Your task to perform on an android device: Find coffee shops on Maps Image 0: 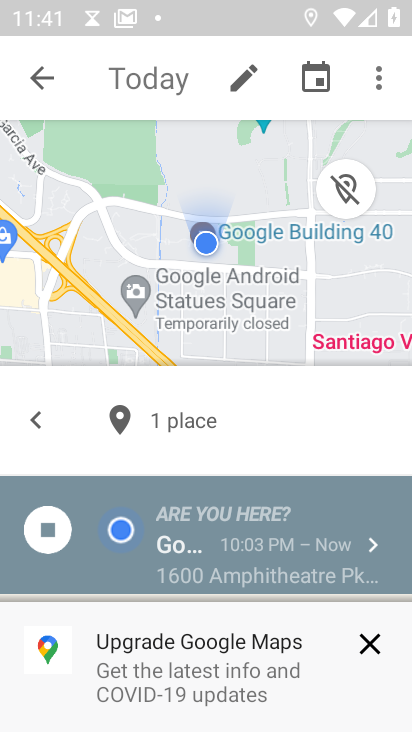
Step 0: click (38, 73)
Your task to perform on an android device: Find coffee shops on Maps Image 1: 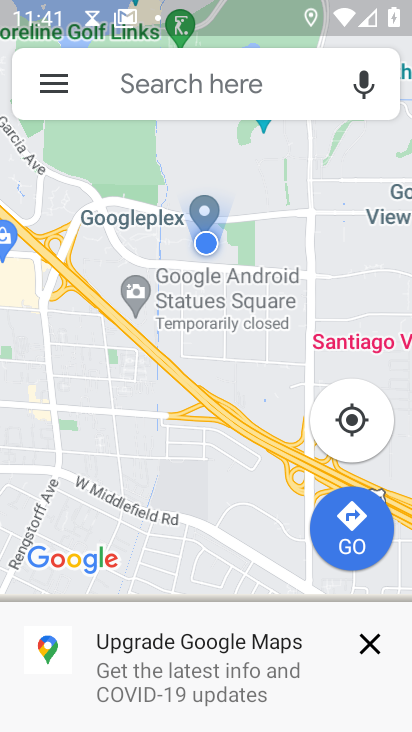
Step 1: click (178, 87)
Your task to perform on an android device: Find coffee shops on Maps Image 2: 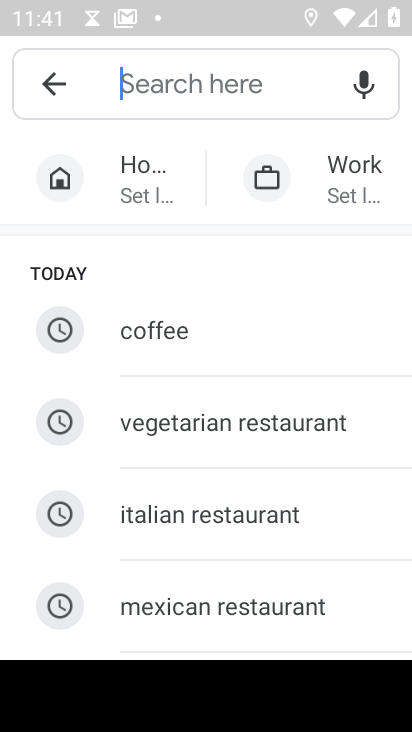
Step 2: click (203, 86)
Your task to perform on an android device: Find coffee shops on Maps Image 3: 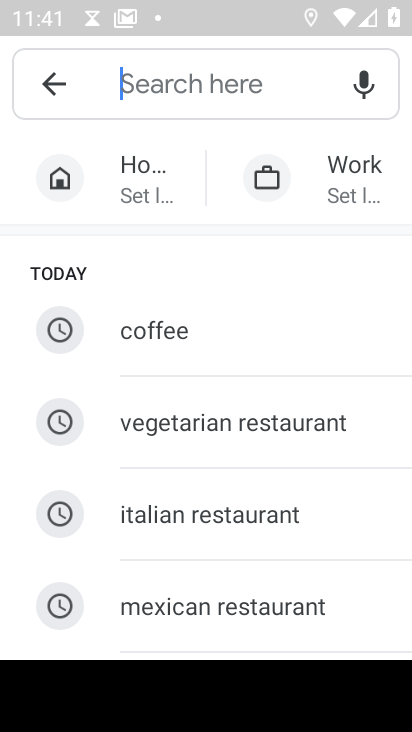
Step 3: type "coffee shops"
Your task to perform on an android device: Find coffee shops on Maps Image 4: 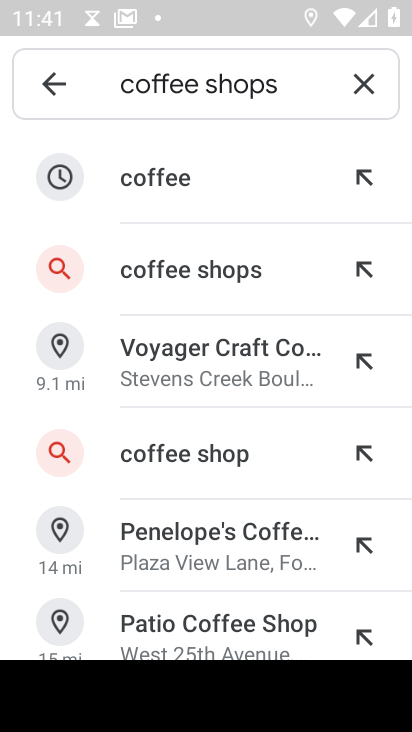
Step 4: click (235, 264)
Your task to perform on an android device: Find coffee shops on Maps Image 5: 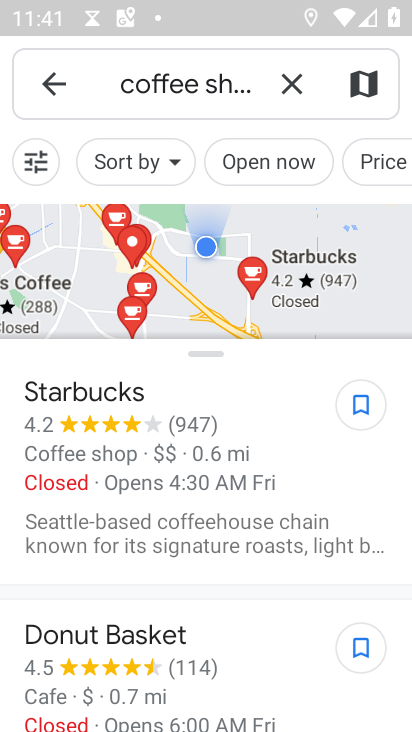
Step 5: task complete